Your task to perform on an android device: turn vacation reply on in the gmail app Image 0: 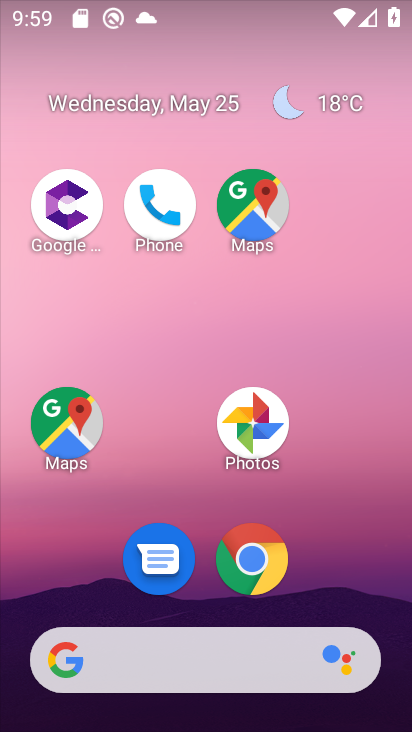
Step 0: drag from (346, 567) to (333, 124)
Your task to perform on an android device: turn vacation reply on in the gmail app Image 1: 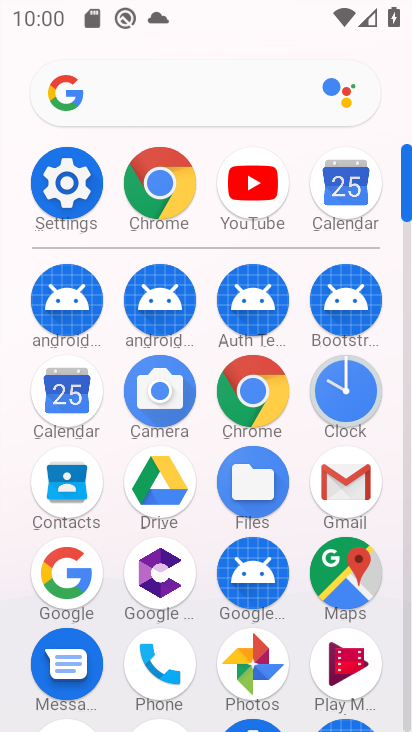
Step 1: click (353, 474)
Your task to perform on an android device: turn vacation reply on in the gmail app Image 2: 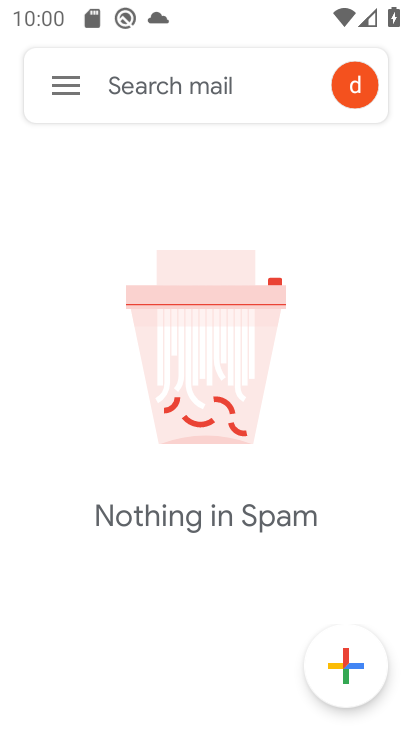
Step 2: click (61, 85)
Your task to perform on an android device: turn vacation reply on in the gmail app Image 3: 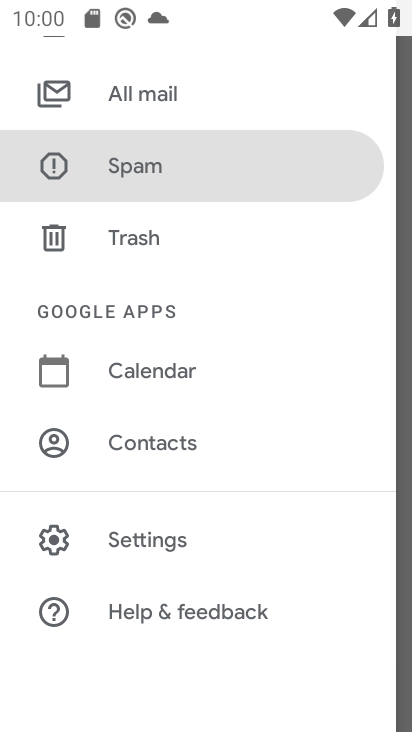
Step 3: click (185, 543)
Your task to perform on an android device: turn vacation reply on in the gmail app Image 4: 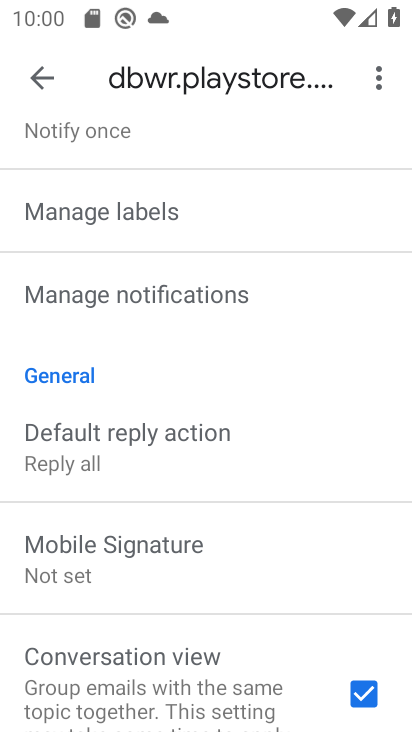
Step 4: drag from (267, 671) to (321, 130)
Your task to perform on an android device: turn vacation reply on in the gmail app Image 5: 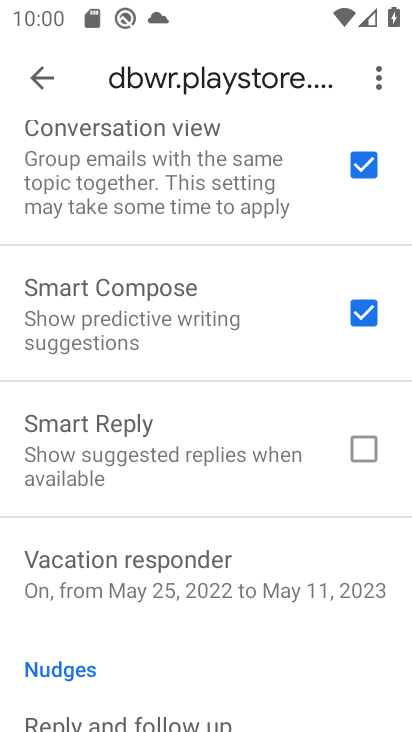
Step 5: click (282, 574)
Your task to perform on an android device: turn vacation reply on in the gmail app Image 6: 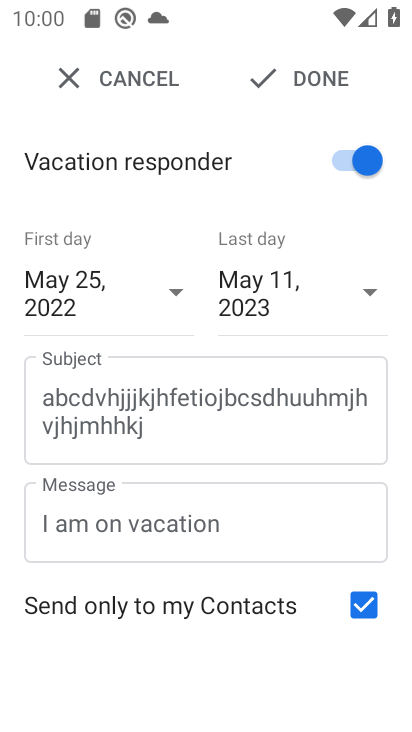
Step 6: click (332, 72)
Your task to perform on an android device: turn vacation reply on in the gmail app Image 7: 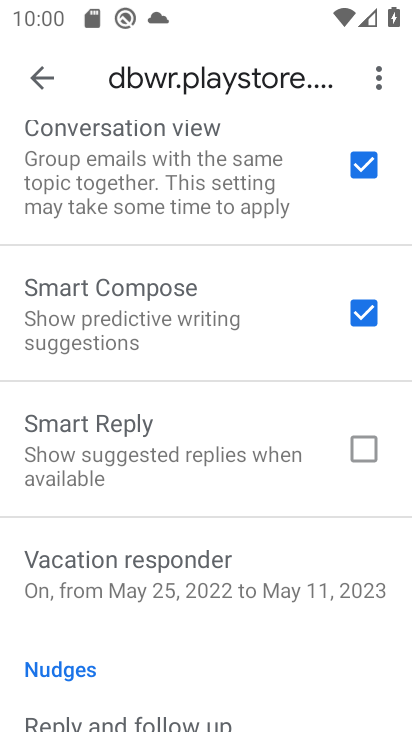
Step 7: task complete